Your task to perform on an android device: Is it going to rain this weekend? Image 0: 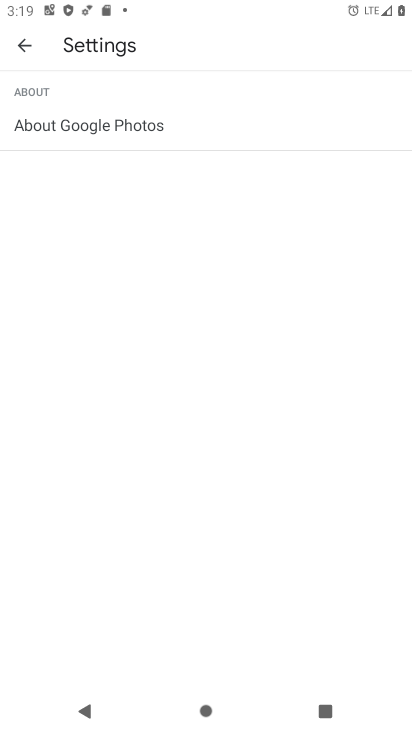
Step 0: press back button
Your task to perform on an android device: Is it going to rain this weekend? Image 1: 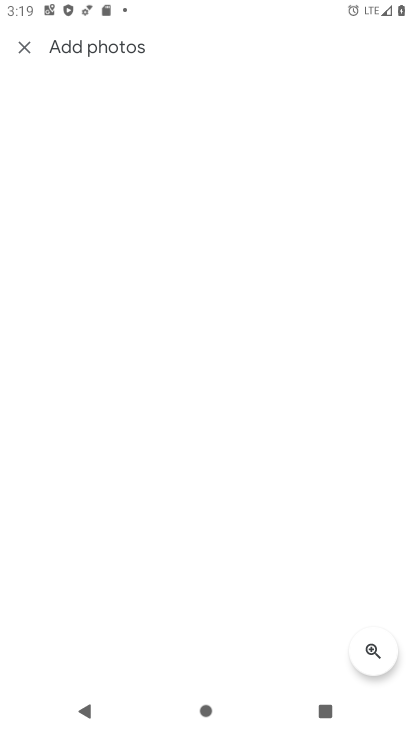
Step 1: press back button
Your task to perform on an android device: Is it going to rain this weekend? Image 2: 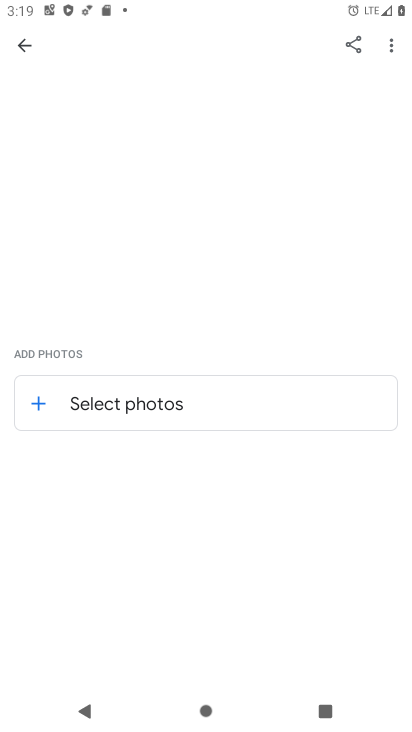
Step 2: press back button
Your task to perform on an android device: Is it going to rain this weekend? Image 3: 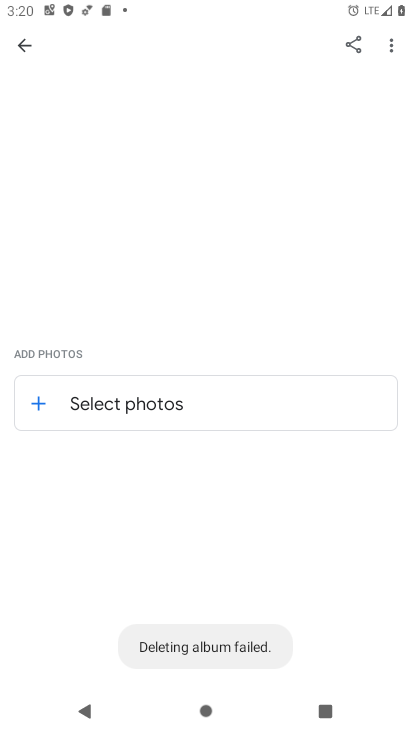
Step 3: press back button
Your task to perform on an android device: Is it going to rain this weekend? Image 4: 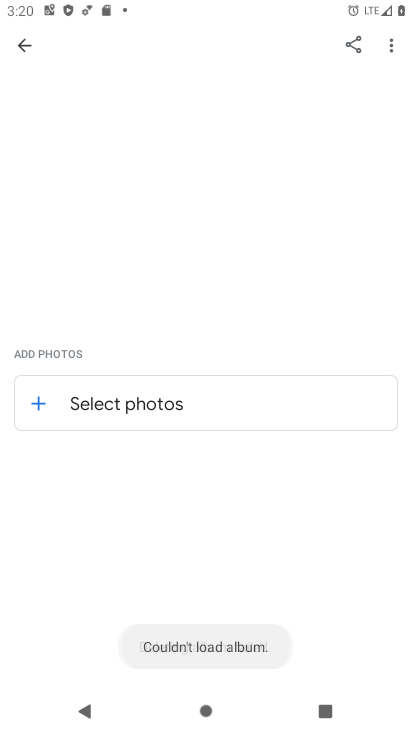
Step 4: press home button
Your task to perform on an android device: Is it going to rain this weekend? Image 5: 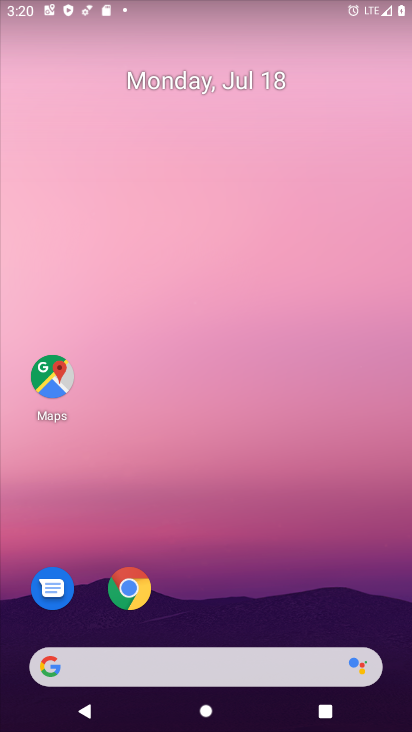
Step 5: drag from (184, 623) to (313, 33)
Your task to perform on an android device: Is it going to rain this weekend? Image 6: 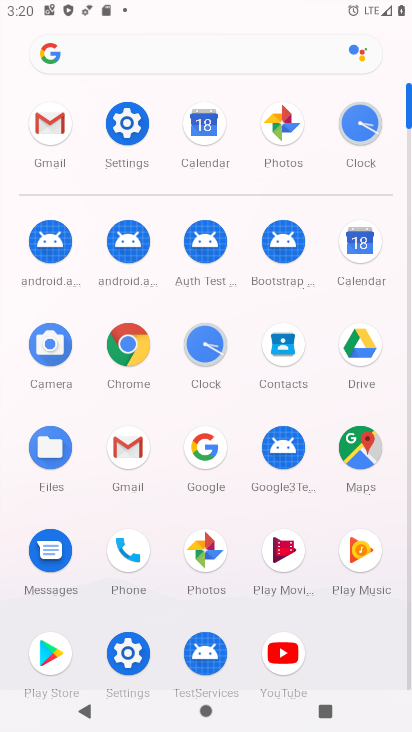
Step 6: click (108, 55)
Your task to perform on an android device: Is it going to rain this weekend? Image 7: 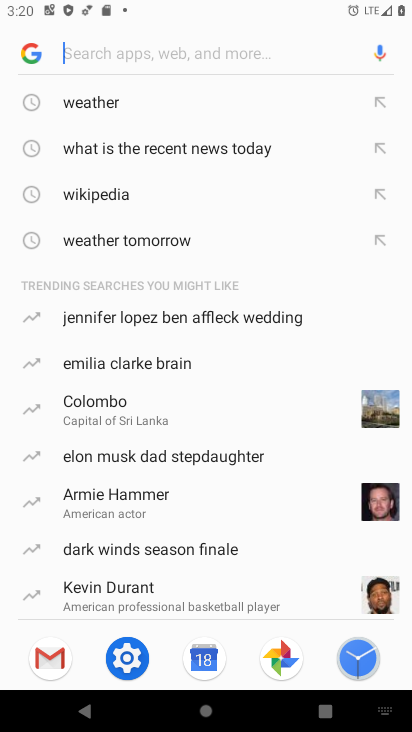
Step 7: click (108, 95)
Your task to perform on an android device: Is it going to rain this weekend? Image 8: 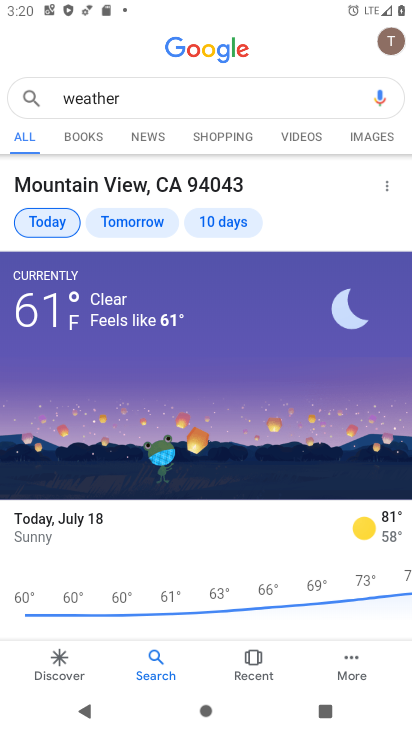
Step 8: click (237, 227)
Your task to perform on an android device: Is it going to rain this weekend? Image 9: 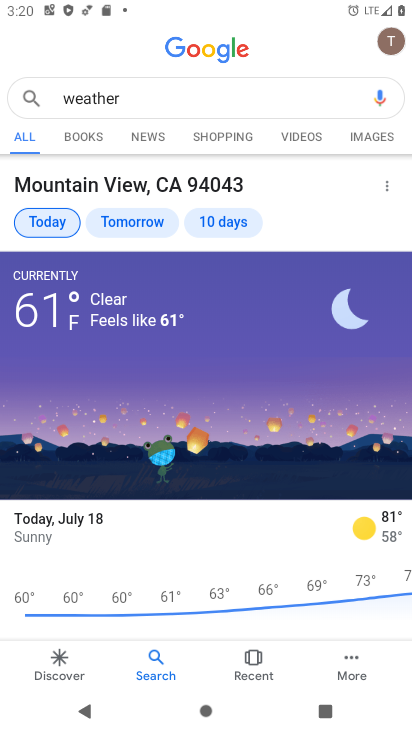
Step 9: click (229, 218)
Your task to perform on an android device: Is it going to rain this weekend? Image 10: 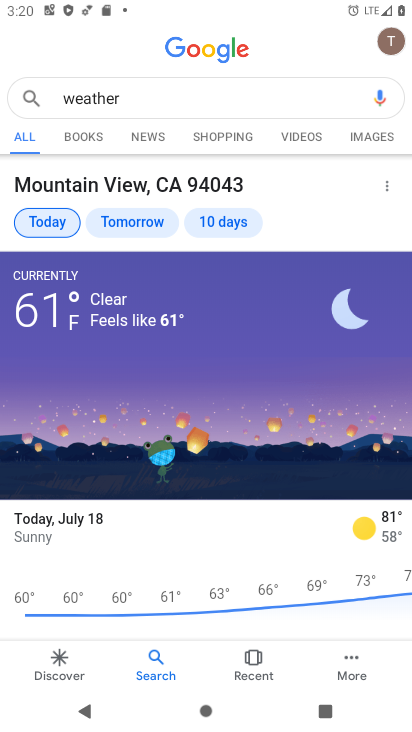
Step 10: click (228, 217)
Your task to perform on an android device: Is it going to rain this weekend? Image 11: 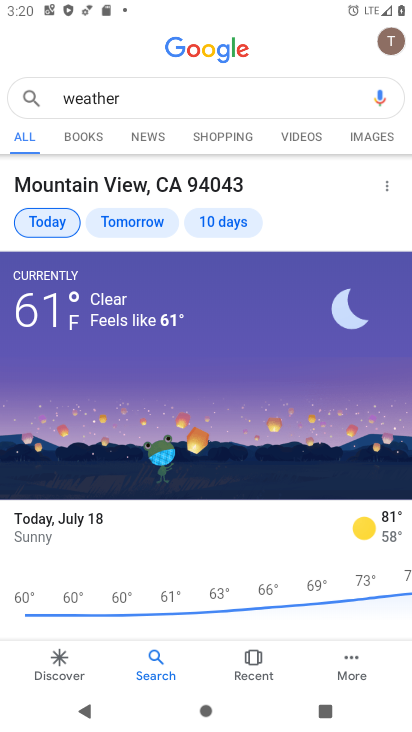
Step 11: click (216, 218)
Your task to perform on an android device: Is it going to rain this weekend? Image 12: 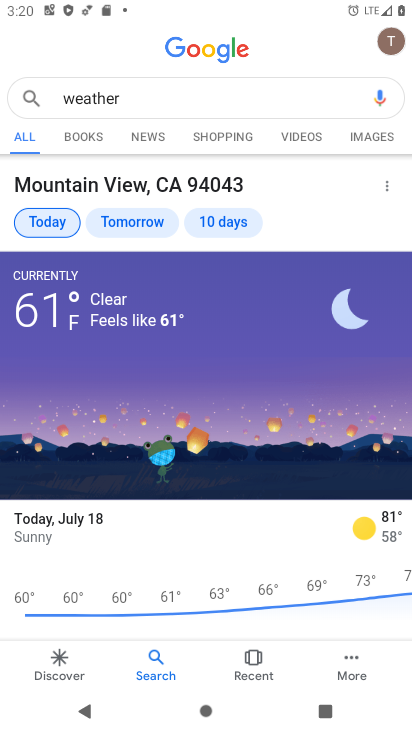
Step 12: task complete